Your task to perform on an android device: toggle data saver in the chrome app Image 0: 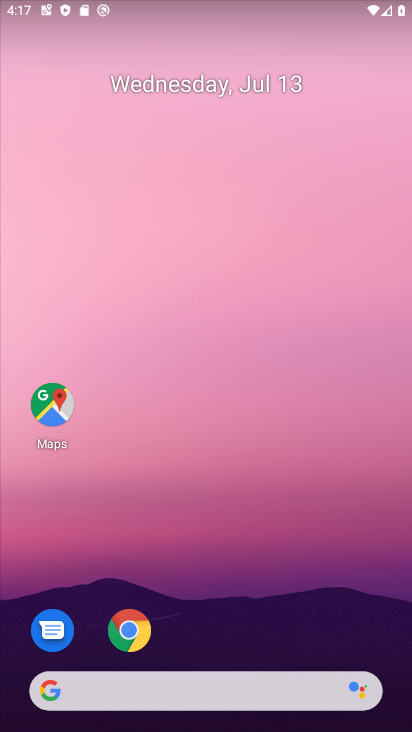
Step 0: drag from (196, 640) to (256, 128)
Your task to perform on an android device: toggle data saver in the chrome app Image 1: 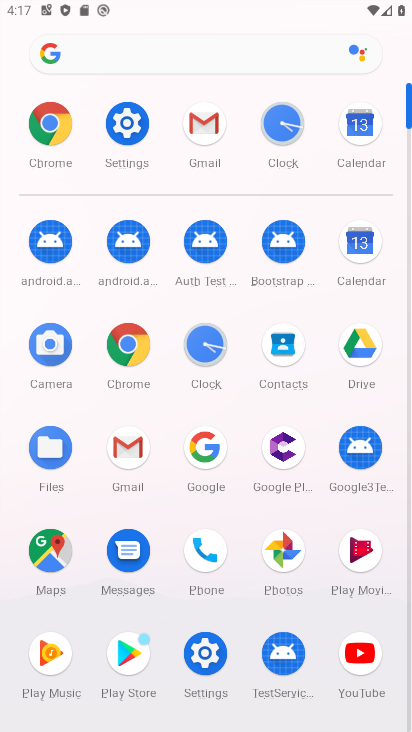
Step 1: click (121, 345)
Your task to perform on an android device: toggle data saver in the chrome app Image 2: 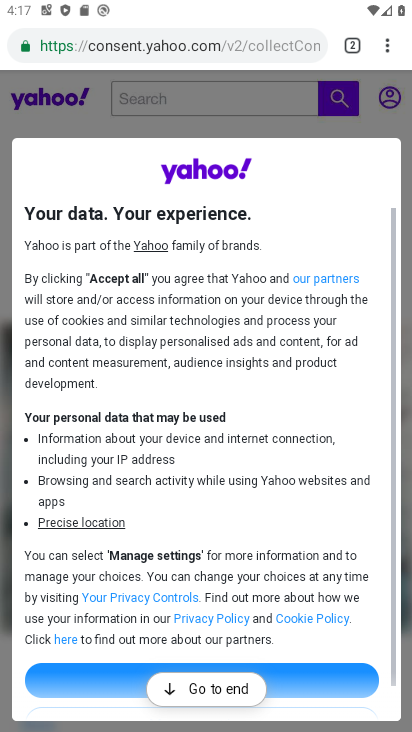
Step 2: drag from (383, 41) to (231, 546)
Your task to perform on an android device: toggle data saver in the chrome app Image 3: 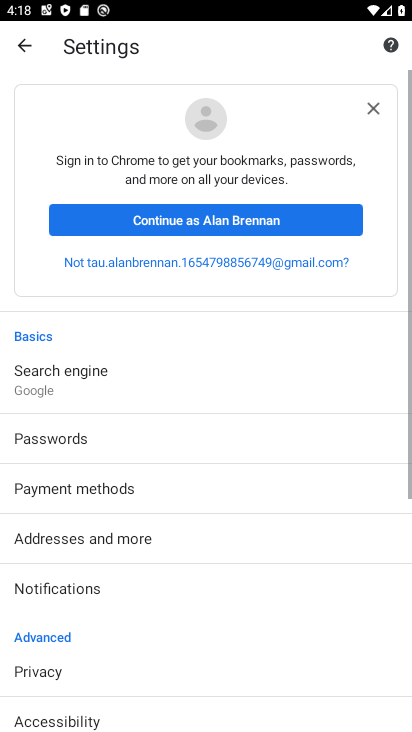
Step 3: drag from (106, 676) to (144, 324)
Your task to perform on an android device: toggle data saver in the chrome app Image 4: 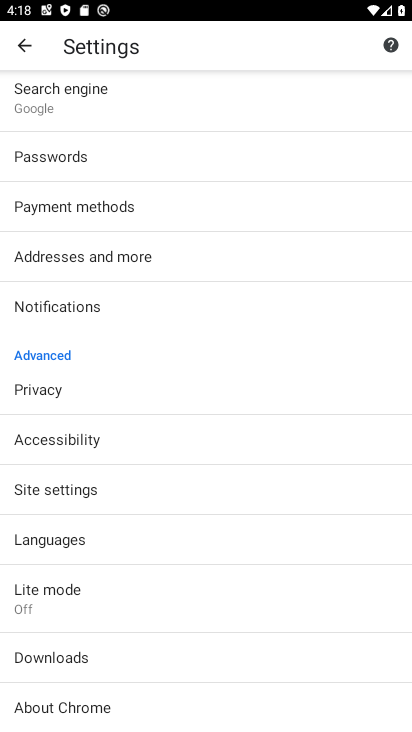
Step 4: click (49, 591)
Your task to perform on an android device: toggle data saver in the chrome app Image 5: 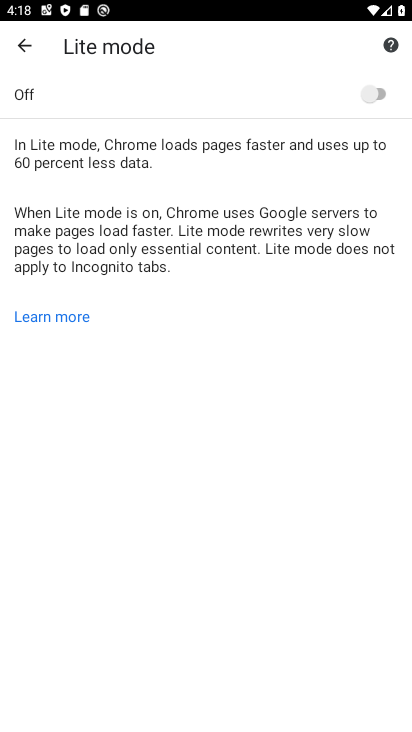
Step 5: click (380, 94)
Your task to perform on an android device: toggle data saver in the chrome app Image 6: 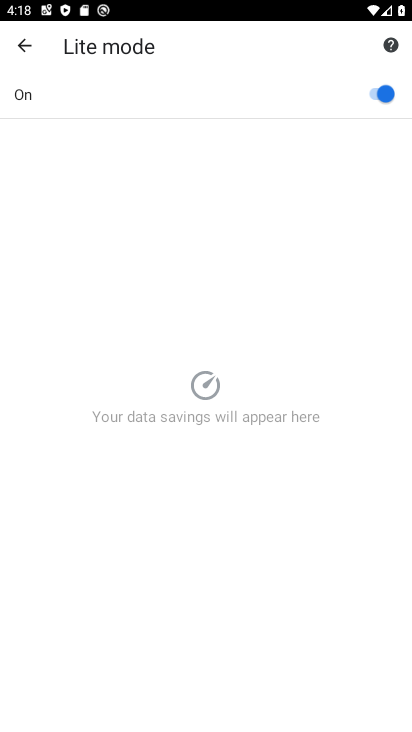
Step 6: task complete